Your task to perform on an android device: Open Youtube and go to "Your channel" Image 0: 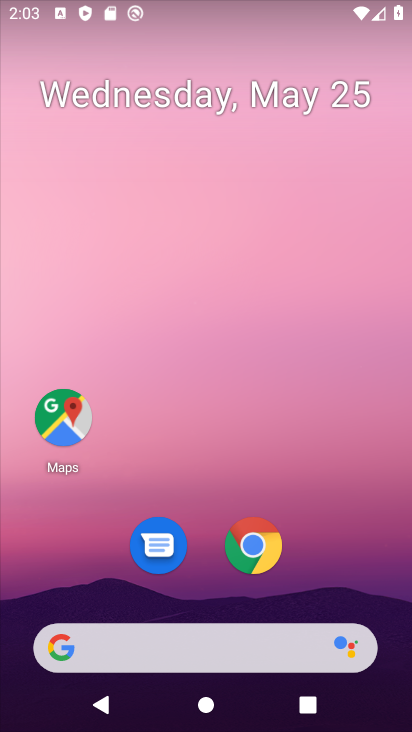
Step 0: click (329, 575)
Your task to perform on an android device: Open Youtube and go to "Your channel" Image 1: 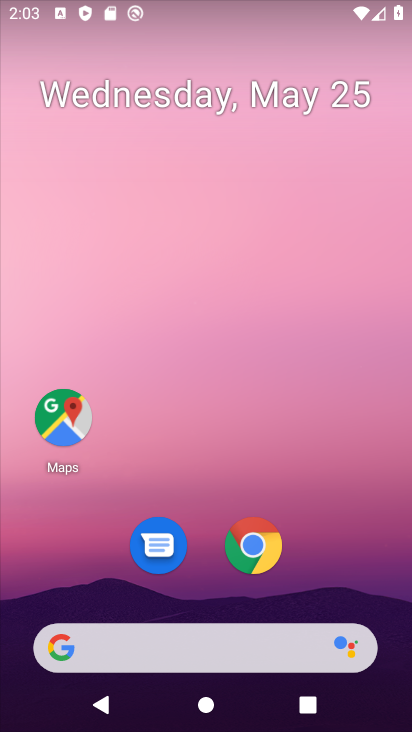
Step 1: drag from (329, 575) to (279, 30)
Your task to perform on an android device: Open Youtube and go to "Your channel" Image 2: 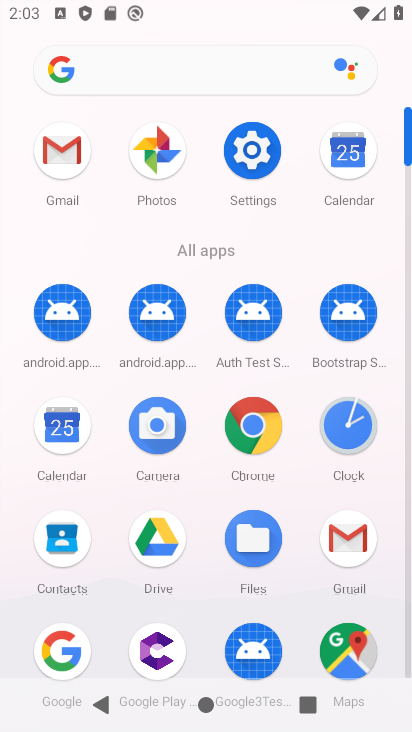
Step 2: click (408, 660)
Your task to perform on an android device: Open Youtube and go to "Your channel" Image 3: 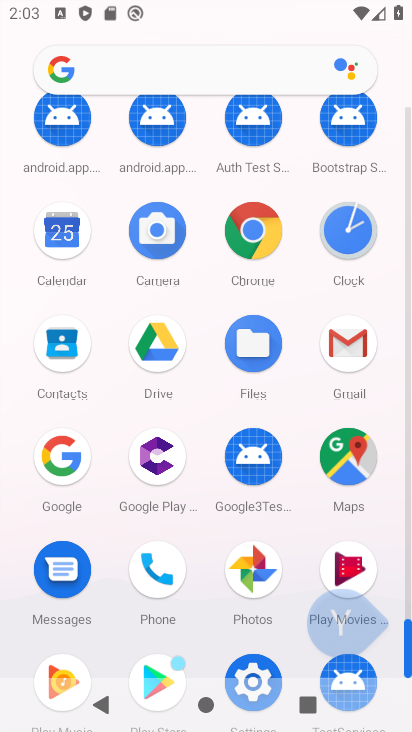
Step 3: click (408, 660)
Your task to perform on an android device: Open Youtube and go to "Your channel" Image 4: 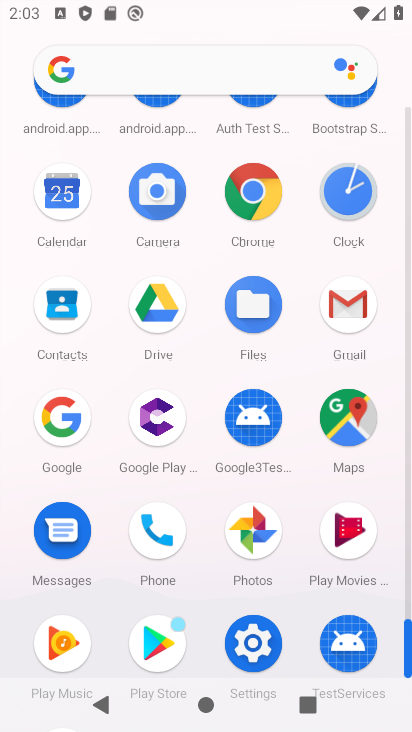
Step 4: drag from (405, 640) to (411, 696)
Your task to perform on an android device: Open Youtube and go to "Your channel" Image 5: 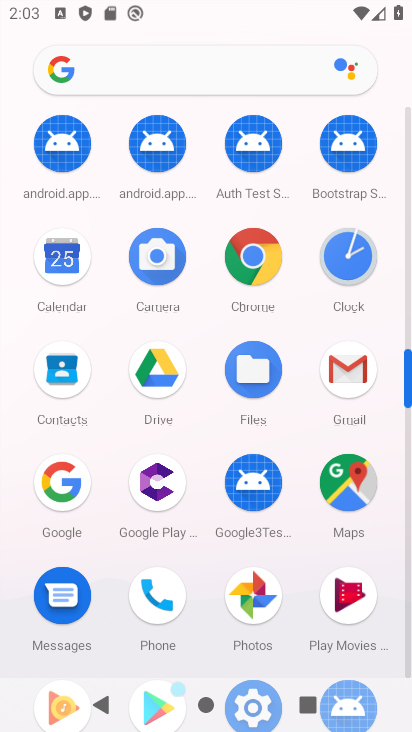
Step 5: click (408, 672)
Your task to perform on an android device: Open Youtube and go to "Your channel" Image 6: 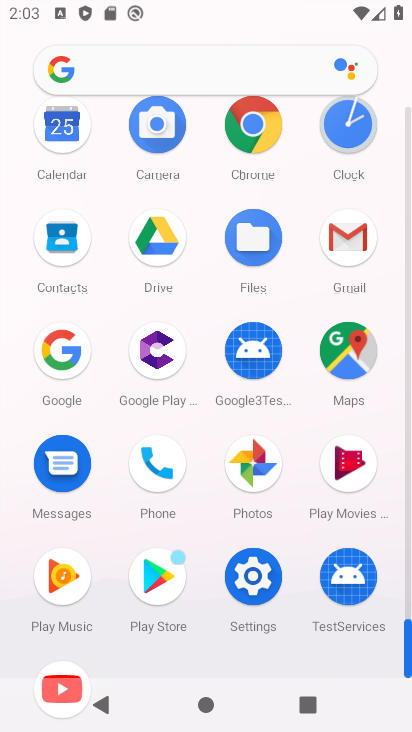
Step 6: click (70, 672)
Your task to perform on an android device: Open Youtube and go to "Your channel" Image 7: 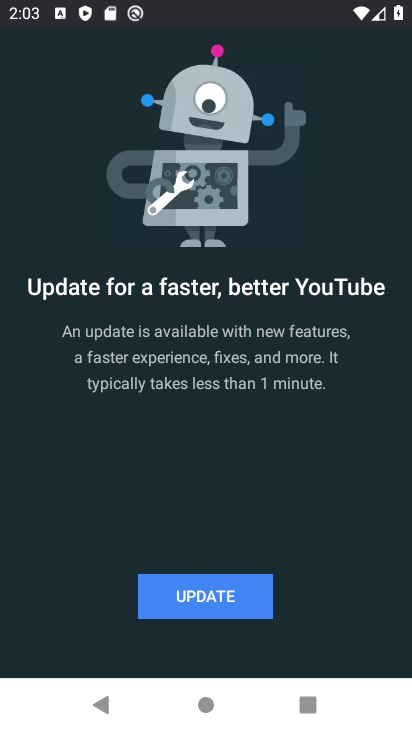
Step 7: click (225, 594)
Your task to perform on an android device: Open Youtube and go to "Your channel" Image 8: 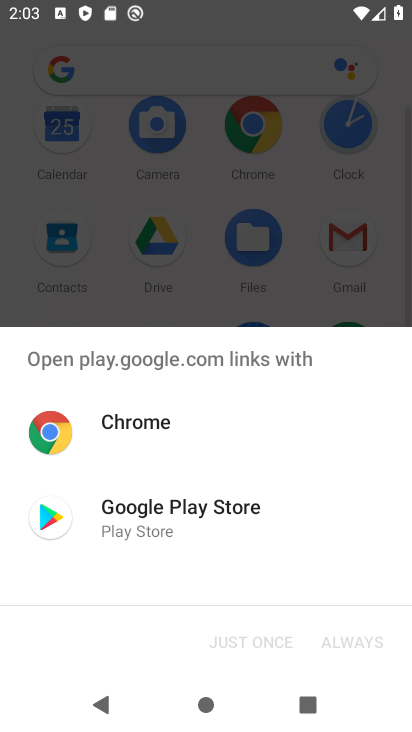
Step 8: click (179, 520)
Your task to perform on an android device: Open Youtube and go to "Your channel" Image 9: 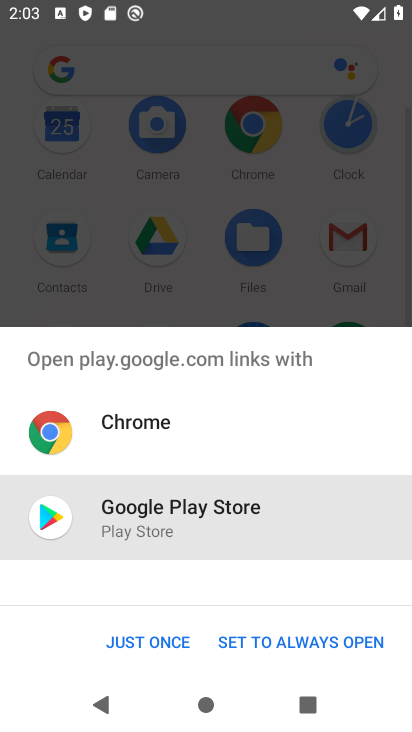
Step 9: click (118, 634)
Your task to perform on an android device: Open Youtube and go to "Your channel" Image 10: 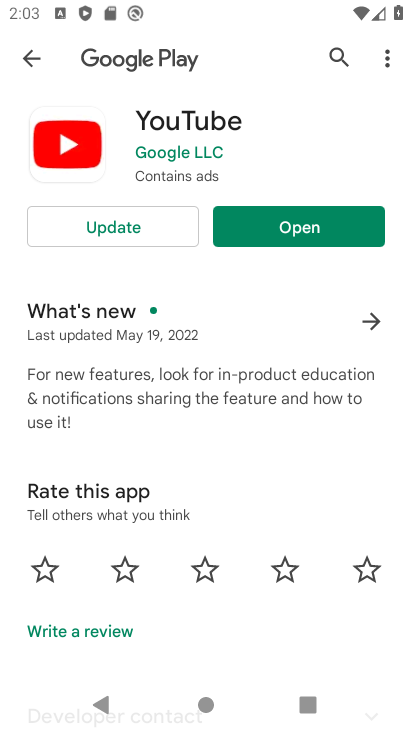
Step 10: click (157, 233)
Your task to perform on an android device: Open Youtube and go to "Your channel" Image 11: 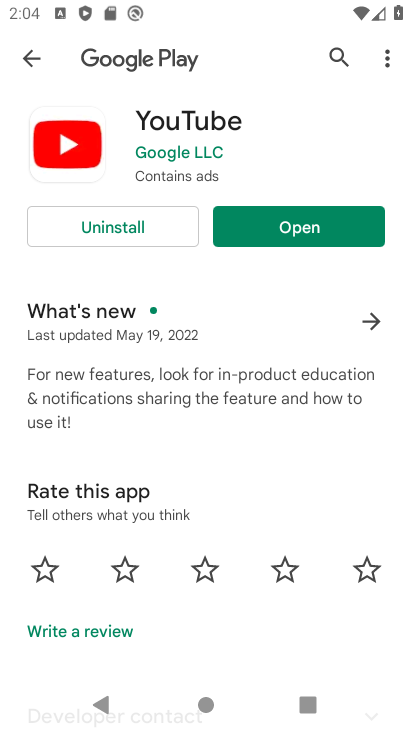
Step 11: click (296, 232)
Your task to perform on an android device: Open Youtube and go to "Your channel" Image 12: 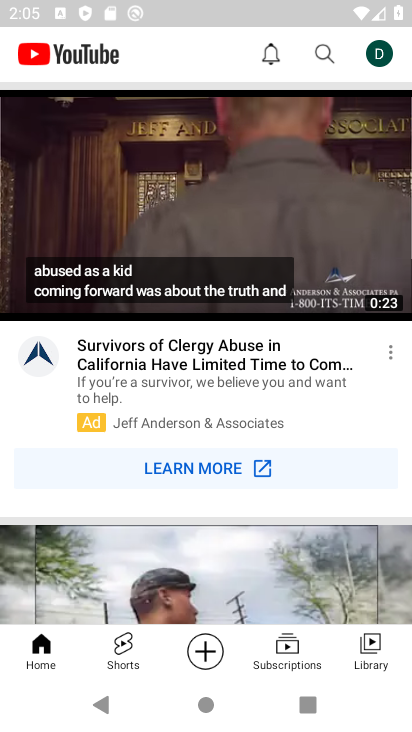
Step 12: click (372, 642)
Your task to perform on an android device: Open Youtube and go to "Your channel" Image 13: 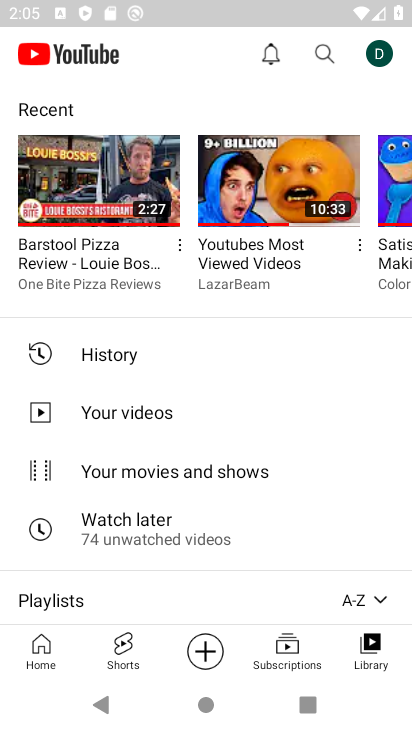
Step 13: click (112, 423)
Your task to perform on an android device: Open Youtube and go to "Your channel" Image 14: 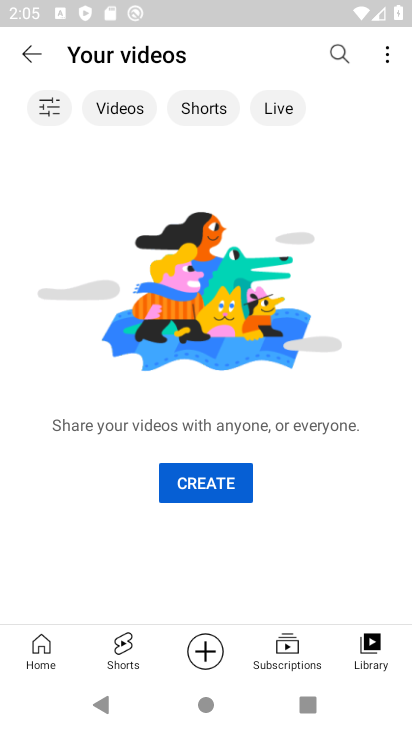
Step 14: click (29, 48)
Your task to perform on an android device: Open Youtube and go to "Your channel" Image 15: 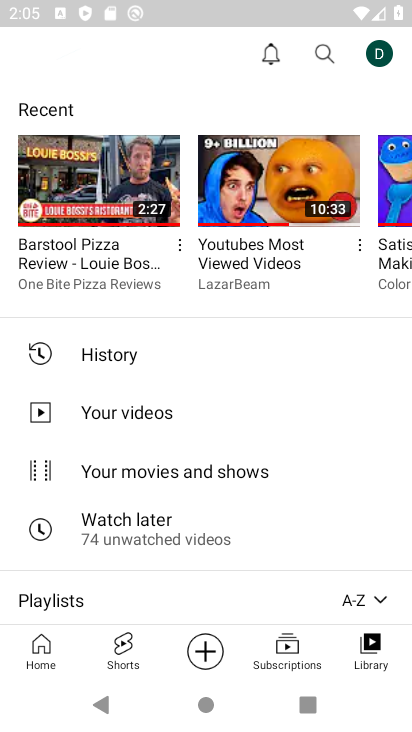
Step 15: click (382, 46)
Your task to perform on an android device: Open Youtube and go to "Your channel" Image 16: 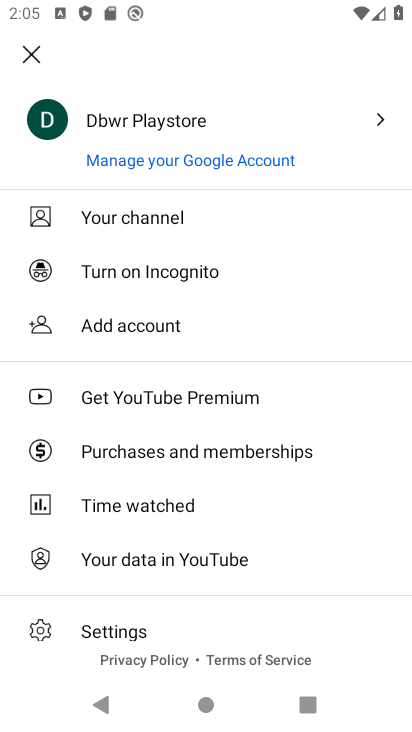
Step 16: click (167, 222)
Your task to perform on an android device: Open Youtube and go to "Your channel" Image 17: 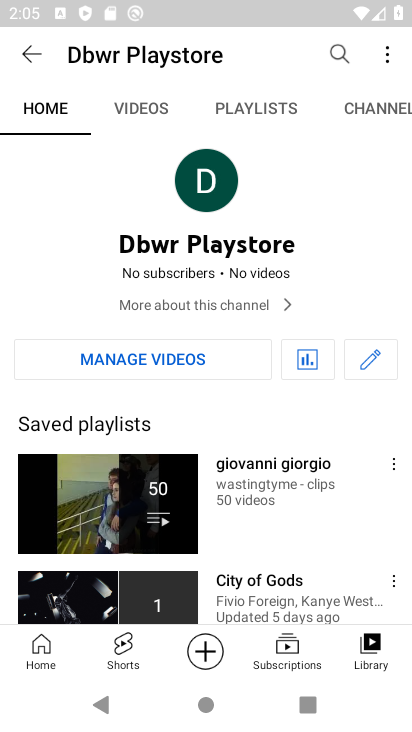
Step 17: task complete